Your task to perform on an android device: turn off translation in the chrome app Image 0: 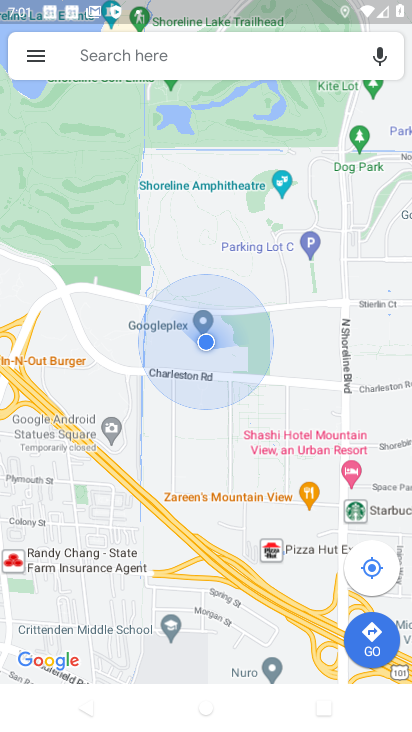
Step 0: press home button
Your task to perform on an android device: turn off translation in the chrome app Image 1: 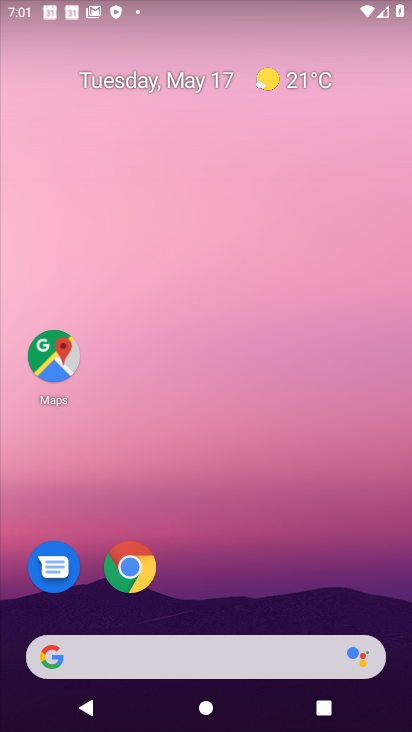
Step 1: click (127, 568)
Your task to perform on an android device: turn off translation in the chrome app Image 2: 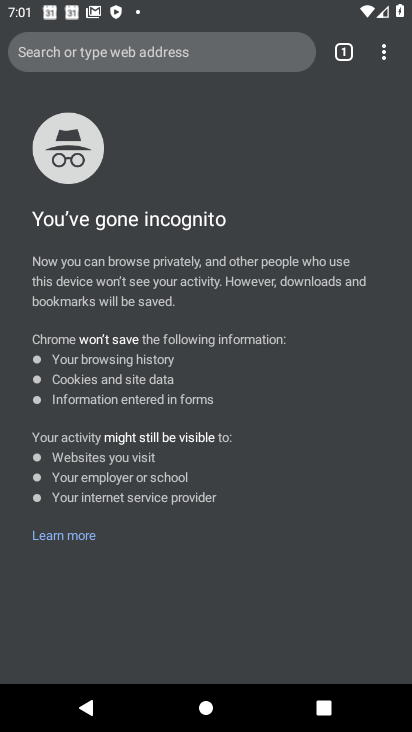
Step 2: click (384, 51)
Your task to perform on an android device: turn off translation in the chrome app Image 3: 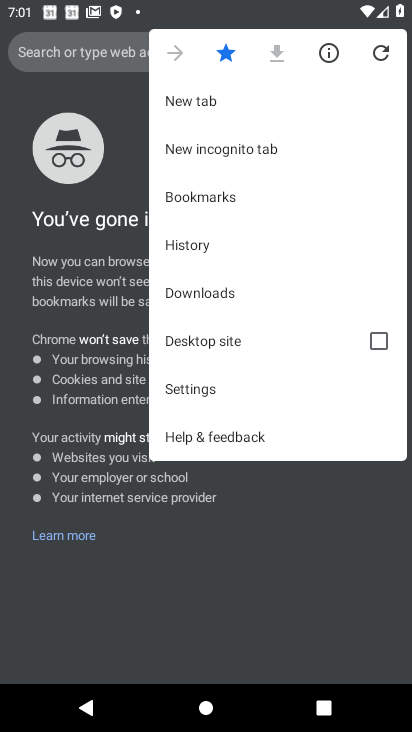
Step 3: click (204, 383)
Your task to perform on an android device: turn off translation in the chrome app Image 4: 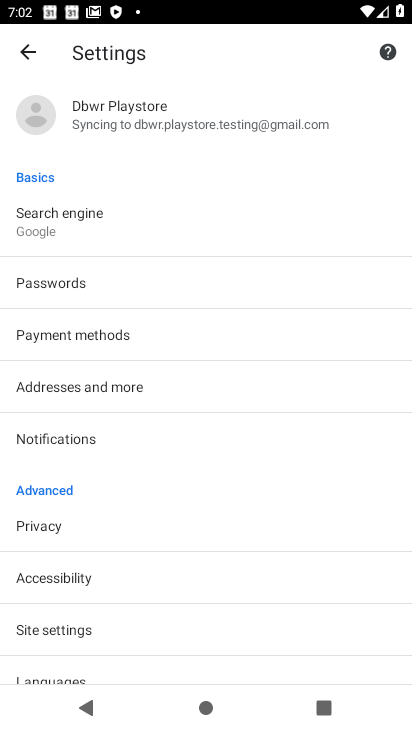
Step 4: drag from (167, 578) to (138, 278)
Your task to perform on an android device: turn off translation in the chrome app Image 5: 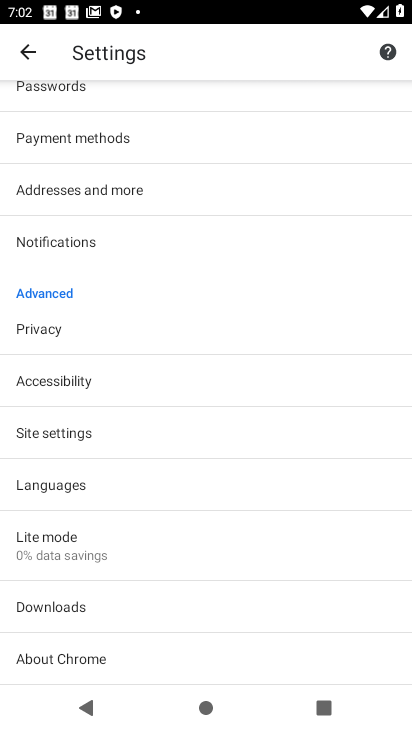
Step 5: click (46, 475)
Your task to perform on an android device: turn off translation in the chrome app Image 6: 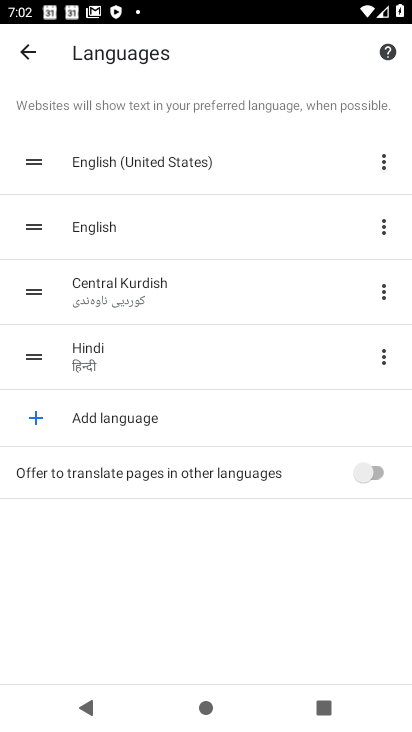
Step 6: task complete